Your task to perform on an android device: Open battery settings Image 0: 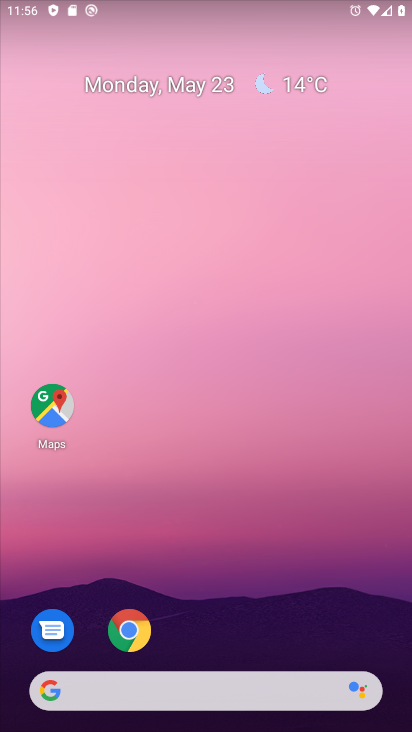
Step 0: drag from (349, 527) to (335, 226)
Your task to perform on an android device: Open battery settings Image 1: 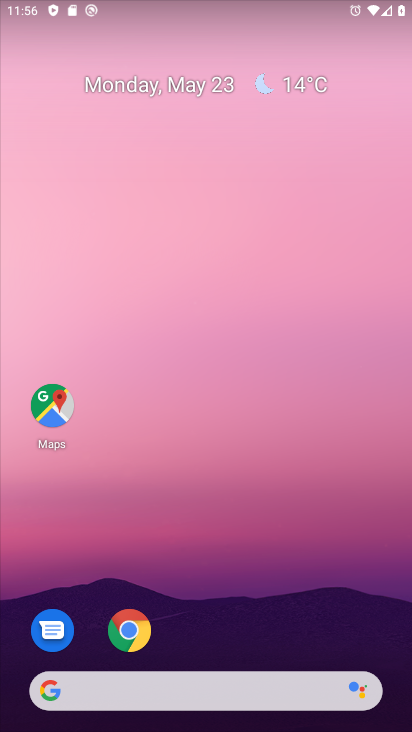
Step 1: drag from (272, 552) to (243, 145)
Your task to perform on an android device: Open battery settings Image 2: 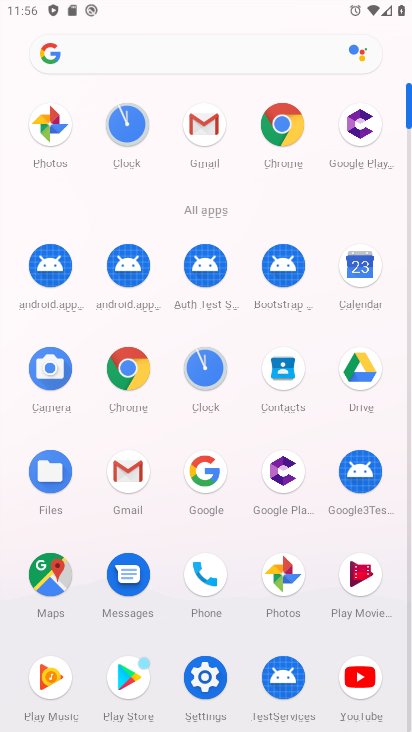
Step 2: click (199, 672)
Your task to perform on an android device: Open battery settings Image 3: 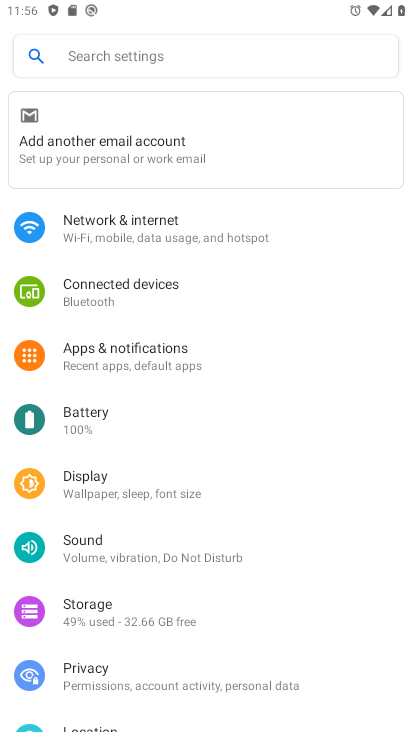
Step 3: click (107, 405)
Your task to perform on an android device: Open battery settings Image 4: 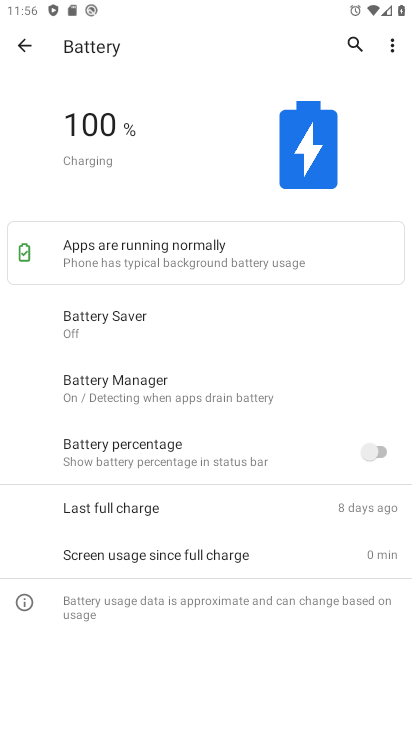
Step 4: task complete